Your task to perform on an android device: turn on the 24-hour format for clock Image 0: 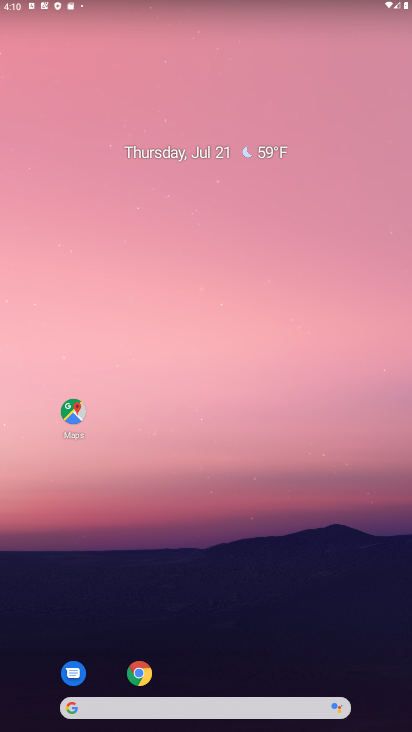
Step 0: drag from (361, 619) to (342, 227)
Your task to perform on an android device: turn on the 24-hour format for clock Image 1: 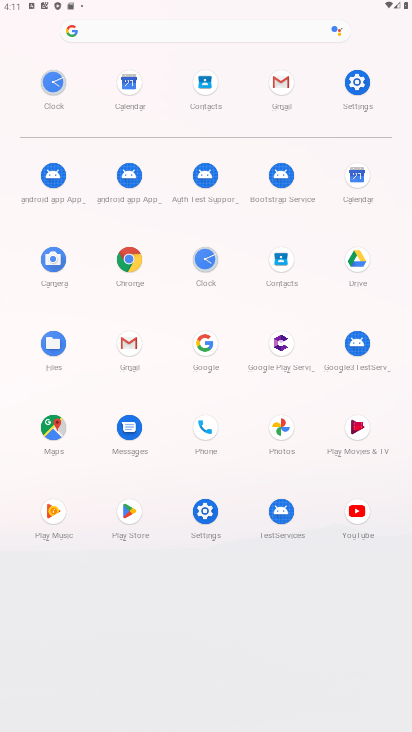
Step 1: click (201, 257)
Your task to perform on an android device: turn on the 24-hour format for clock Image 2: 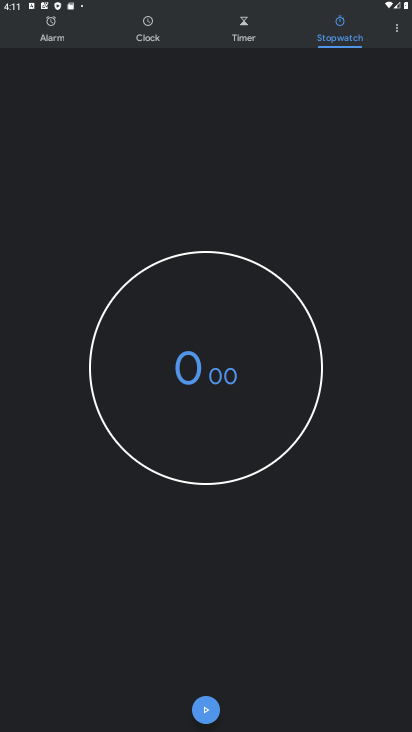
Step 2: click (401, 32)
Your task to perform on an android device: turn on the 24-hour format for clock Image 3: 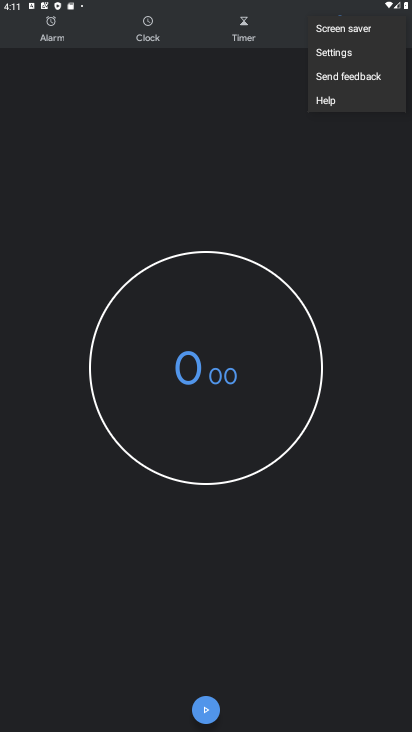
Step 3: click (333, 54)
Your task to perform on an android device: turn on the 24-hour format for clock Image 4: 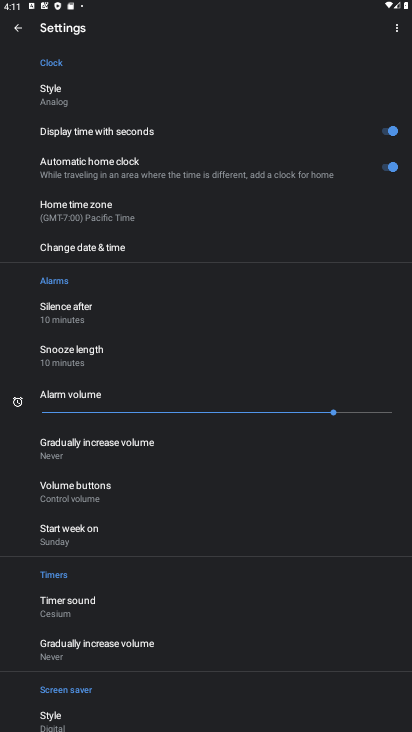
Step 4: click (82, 253)
Your task to perform on an android device: turn on the 24-hour format for clock Image 5: 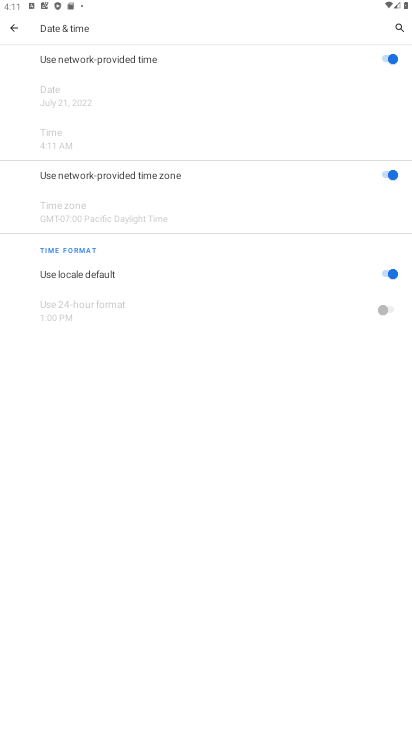
Step 5: click (390, 307)
Your task to perform on an android device: turn on the 24-hour format for clock Image 6: 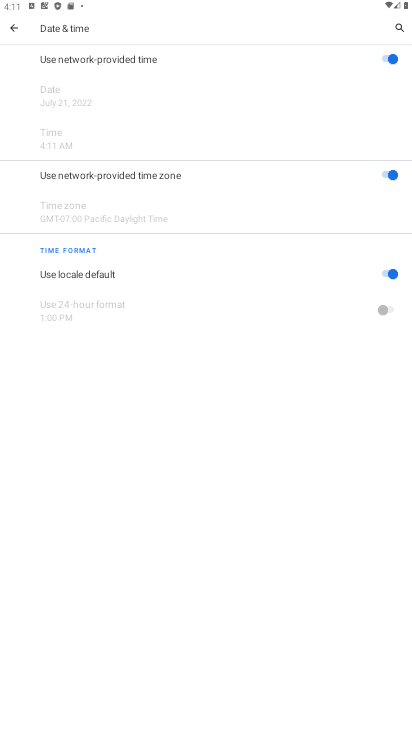
Step 6: click (383, 274)
Your task to perform on an android device: turn on the 24-hour format for clock Image 7: 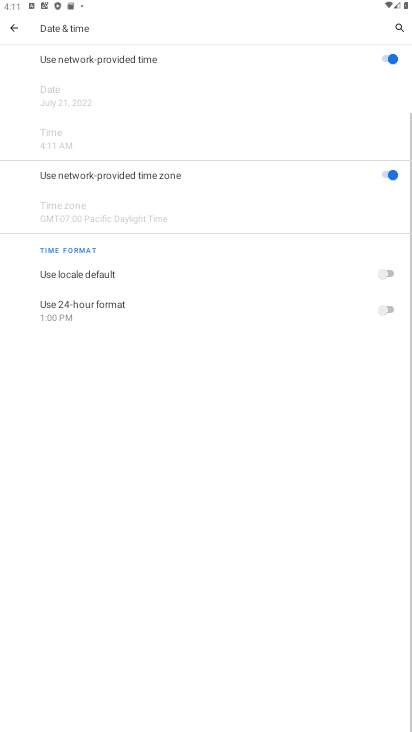
Step 7: click (393, 313)
Your task to perform on an android device: turn on the 24-hour format for clock Image 8: 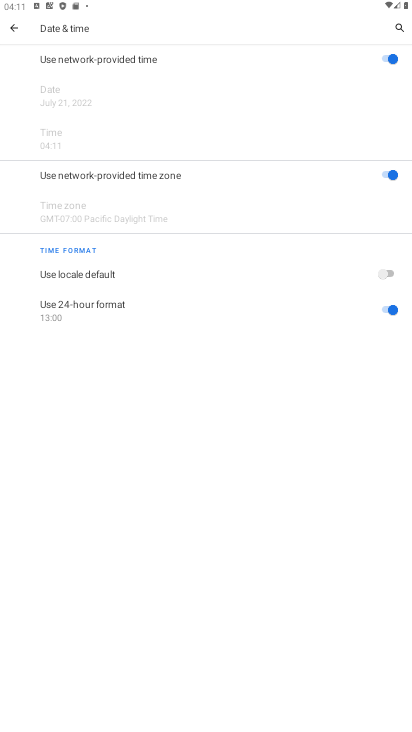
Step 8: task complete